Your task to perform on an android device: see tabs open on other devices in the chrome app Image 0: 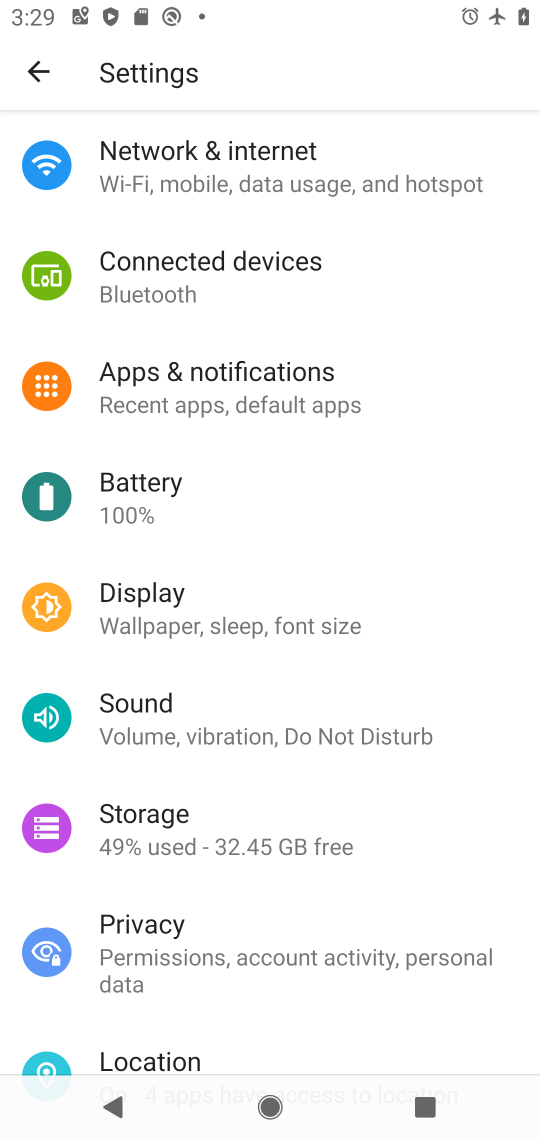
Step 0: press back button
Your task to perform on an android device: see tabs open on other devices in the chrome app Image 1: 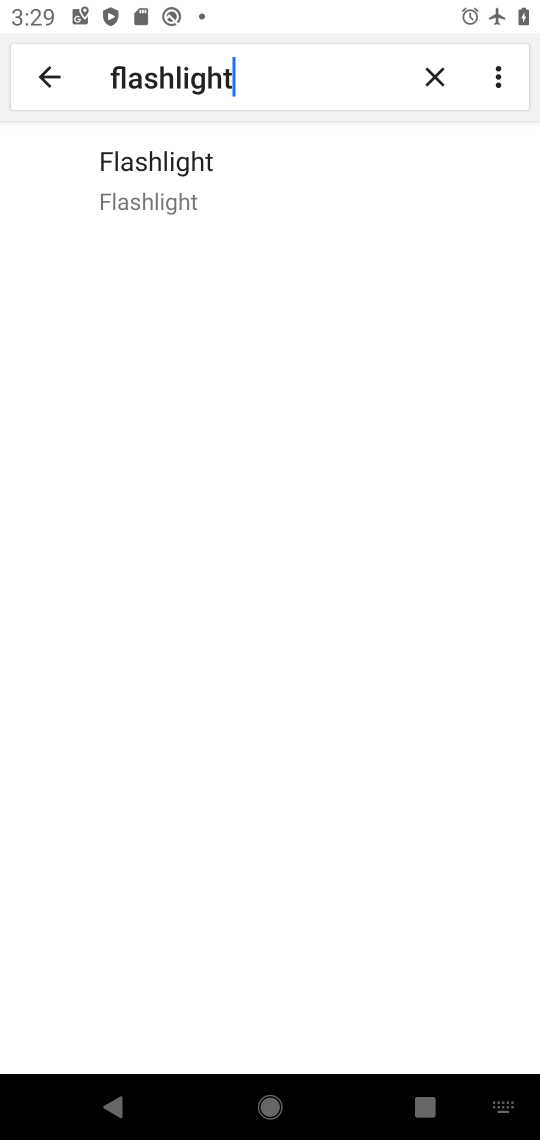
Step 1: press back button
Your task to perform on an android device: see tabs open on other devices in the chrome app Image 2: 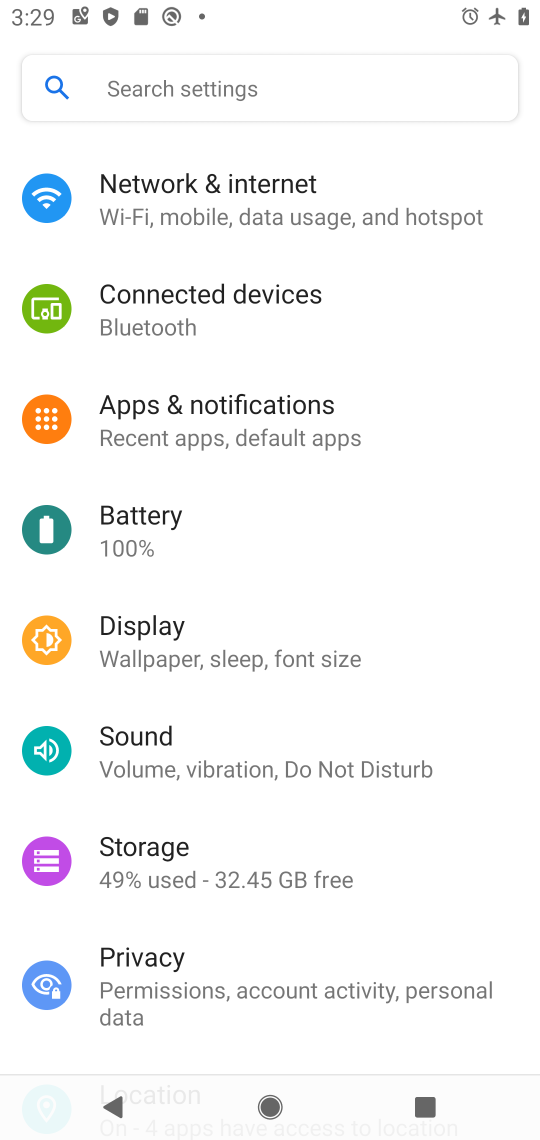
Step 2: press home button
Your task to perform on an android device: see tabs open on other devices in the chrome app Image 3: 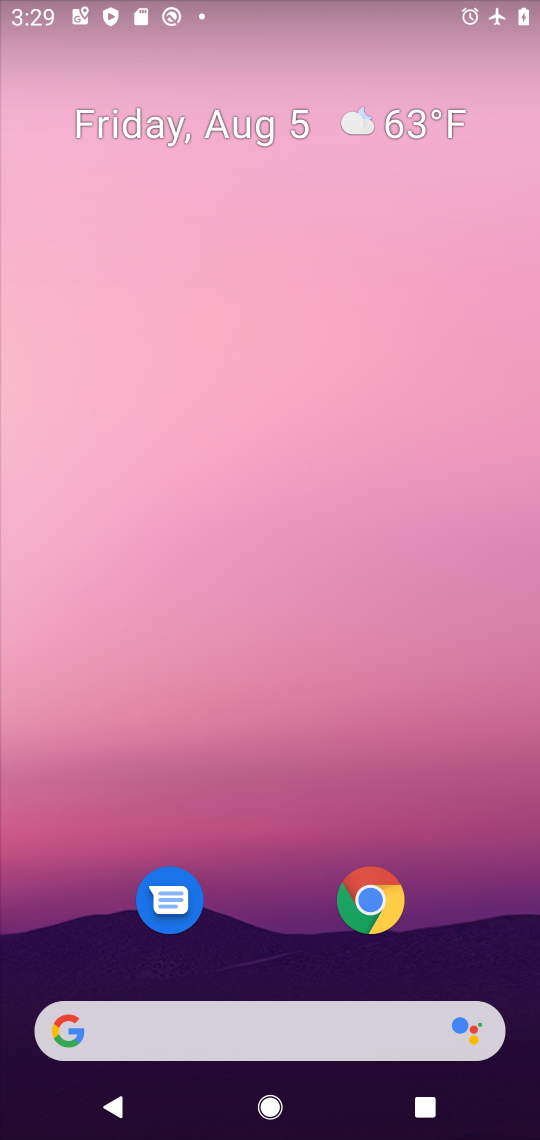
Step 3: click (380, 879)
Your task to perform on an android device: see tabs open on other devices in the chrome app Image 4: 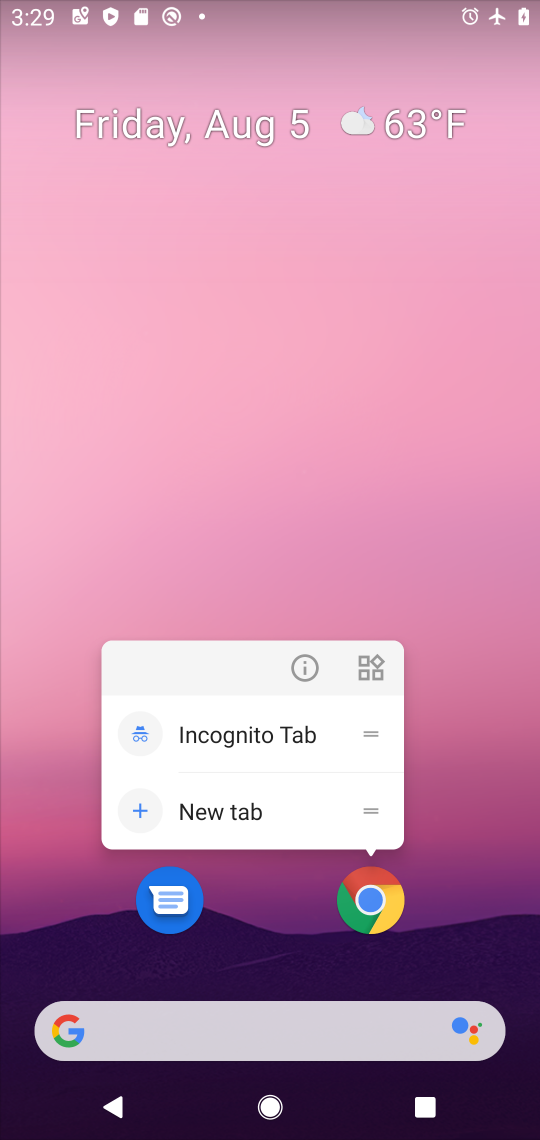
Step 4: click (368, 906)
Your task to perform on an android device: see tabs open on other devices in the chrome app Image 5: 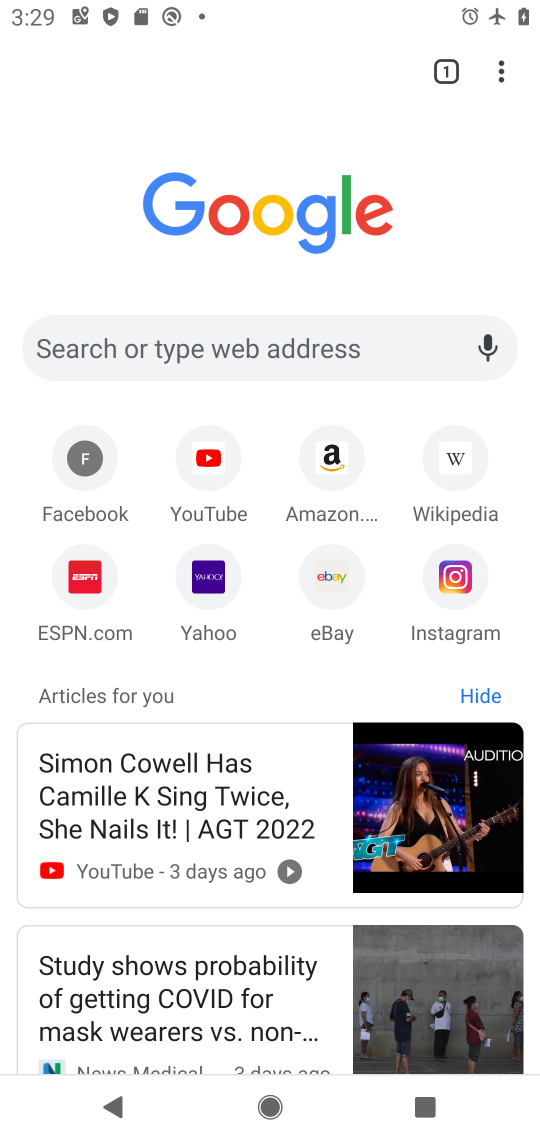
Step 5: task complete